Your task to perform on an android device: turn off airplane mode Image 0: 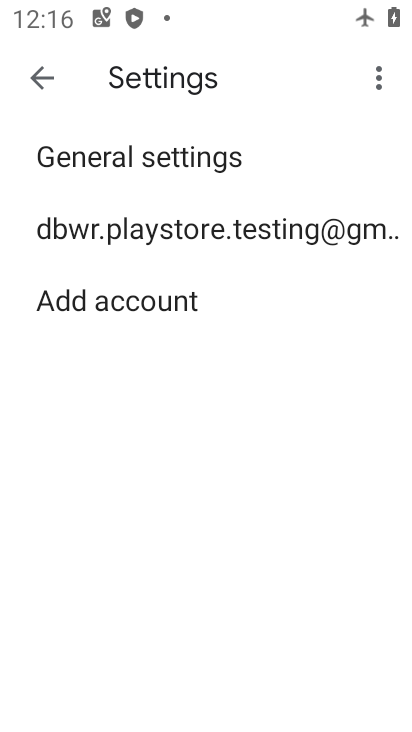
Step 0: press home button
Your task to perform on an android device: turn off airplane mode Image 1: 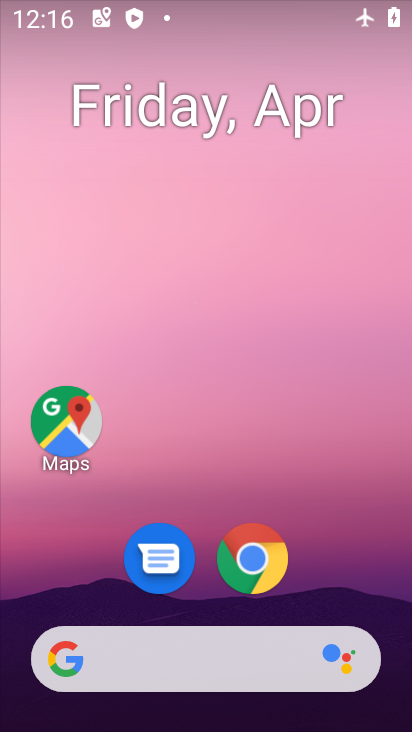
Step 1: drag from (370, 597) to (280, 153)
Your task to perform on an android device: turn off airplane mode Image 2: 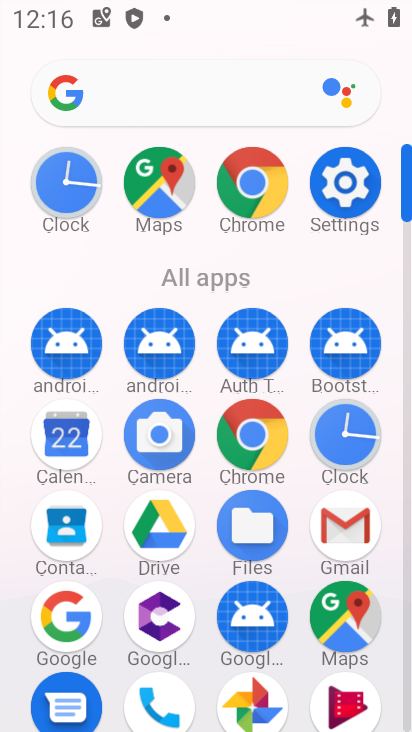
Step 2: drag from (266, 0) to (277, 376)
Your task to perform on an android device: turn off airplane mode Image 3: 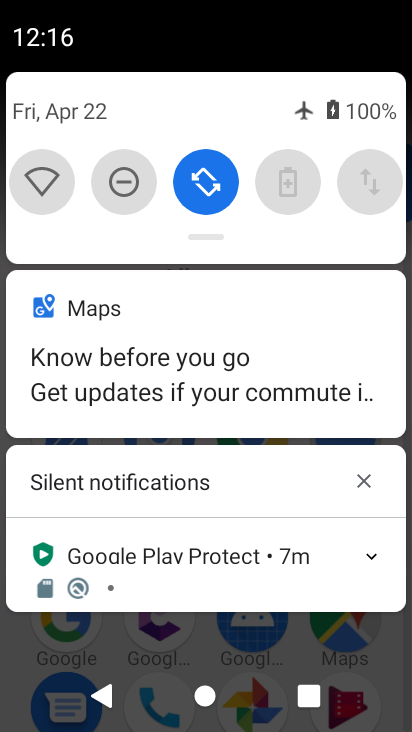
Step 3: drag from (209, 233) to (201, 556)
Your task to perform on an android device: turn off airplane mode Image 4: 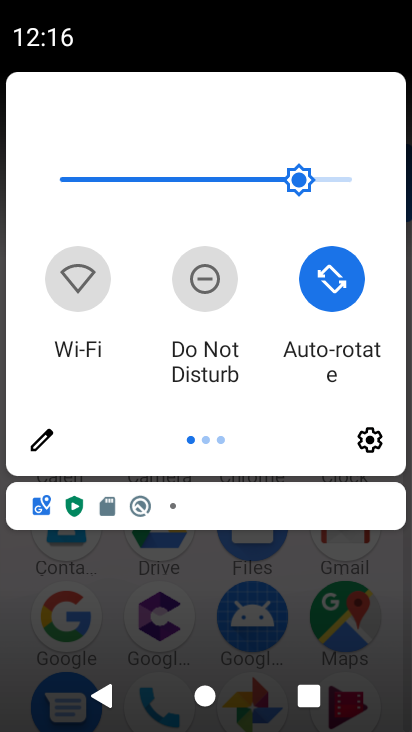
Step 4: drag from (366, 363) to (23, 295)
Your task to perform on an android device: turn off airplane mode Image 5: 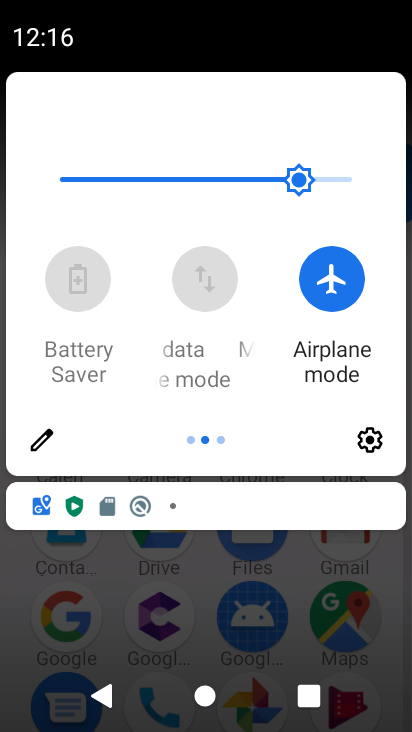
Step 5: click (331, 288)
Your task to perform on an android device: turn off airplane mode Image 6: 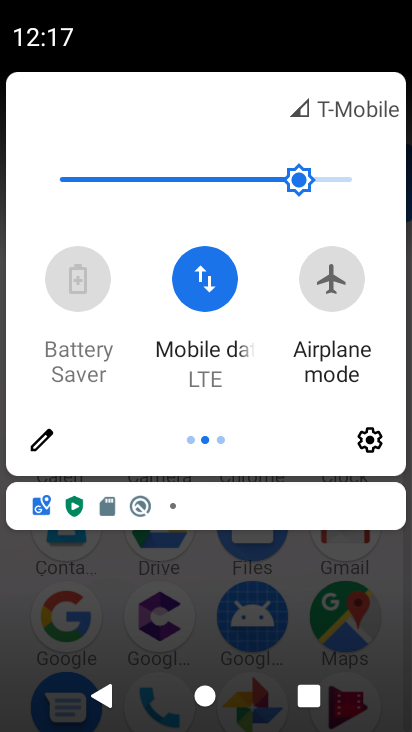
Step 6: task complete